Your task to perform on an android device: toggle notification dots Image 0: 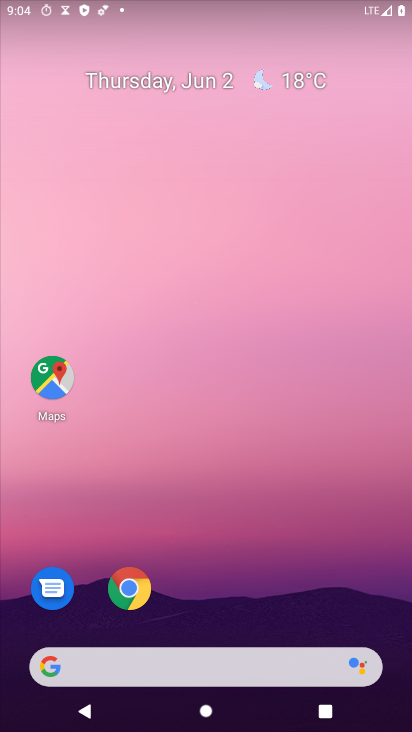
Step 0: drag from (228, 586) to (293, 95)
Your task to perform on an android device: toggle notification dots Image 1: 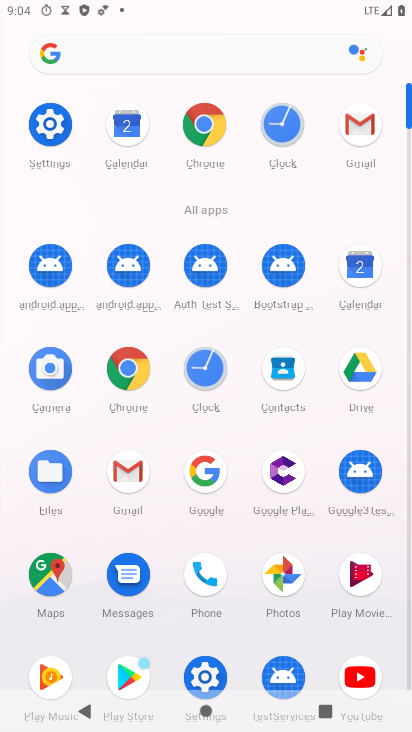
Step 1: click (49, 120)
Your task to perform on an android device: toggle notification dots Image 2: 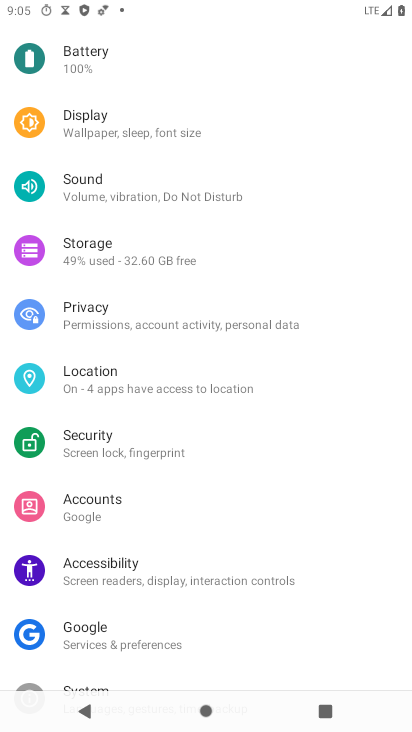
Step 2: drag from (236, 158) to (215, 553)
Your task to perform on an android device: toggle notification dots Image 3: 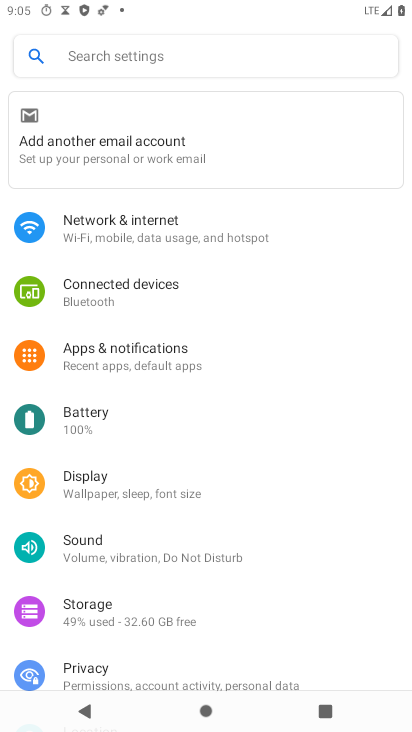
Step 3: click (152, 363)
Your task to perform on an android device: toggle notification dots Image 4: 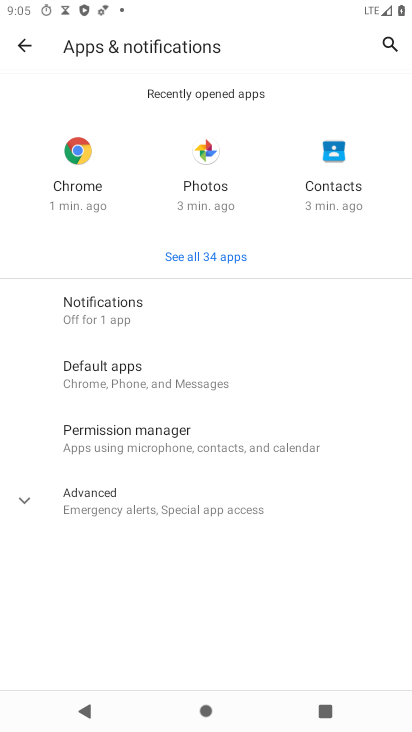
Step 4: click (167, 307)
Your task to perform on an android device: toggle notification dots Image 5: 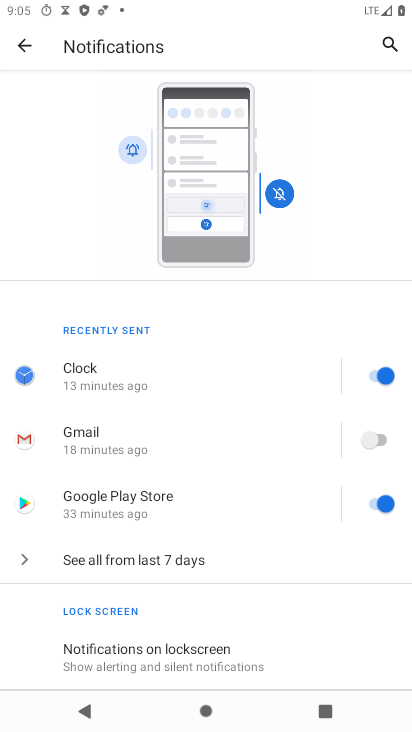
Step 5: drag from (183, 628) to (250, 96)
Your task to perform on an android device: toggle notification dots Image 6: 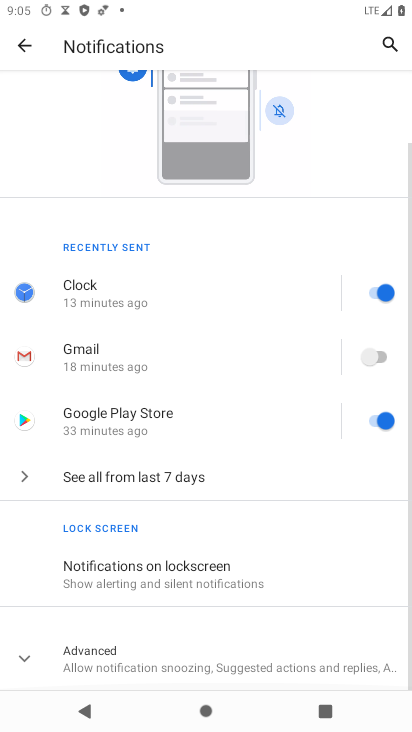
Step 6: click (160, 668)
Your task to perform on an android device: toggle notification dots Image 7: 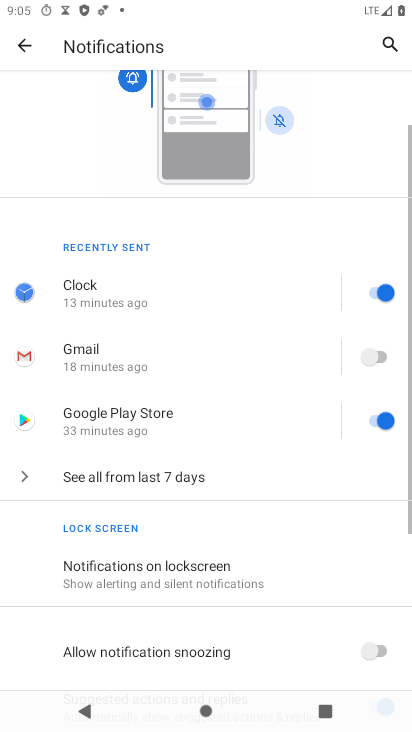
Step 7: drag from (165, 589) to (216, 123)
Your task to perform on an android device: toggle notification dots Image 8: 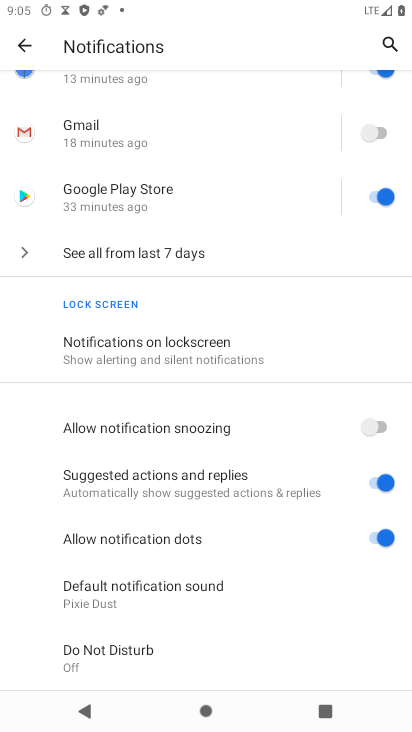
Step 8: click (383, 531)
Your task to perform on an android device: toggle notification dots Image 9: 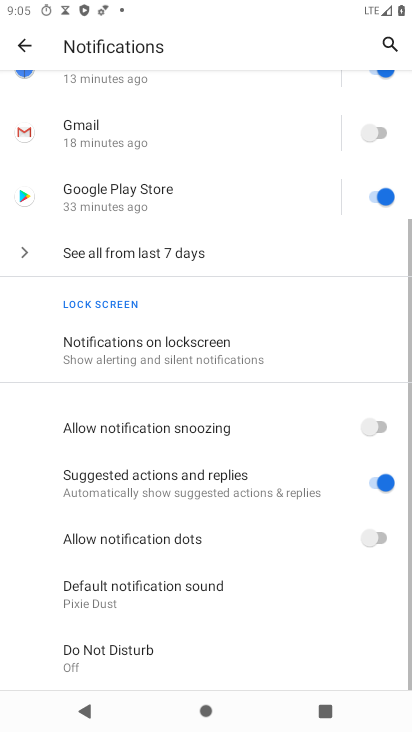
Step 9: task complete